Your task to perform on an android device: Go to Reddit.com Image 0: 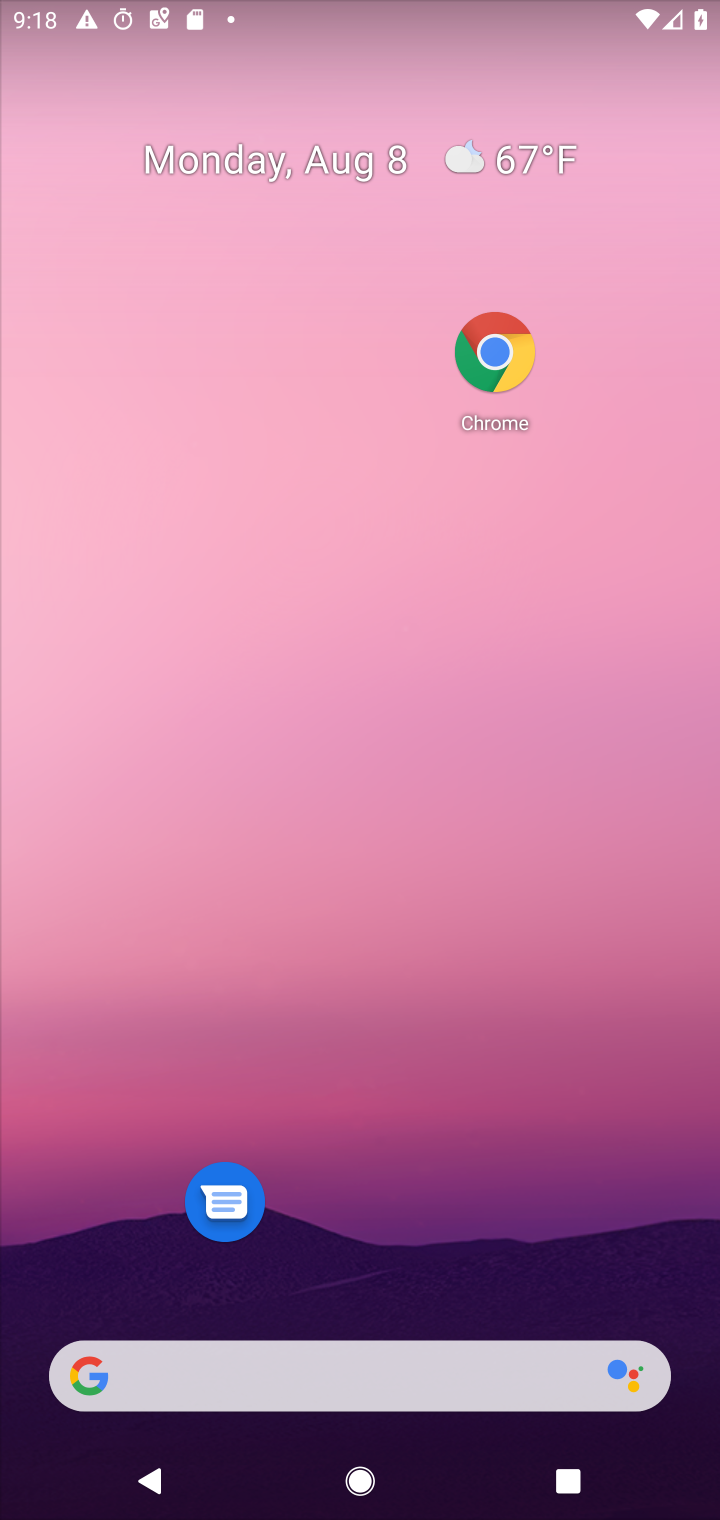
Step 0: drag from (396, 1330) to (463, 48)
Your task to perform on an android device: Go to Reddit.com Image 1: 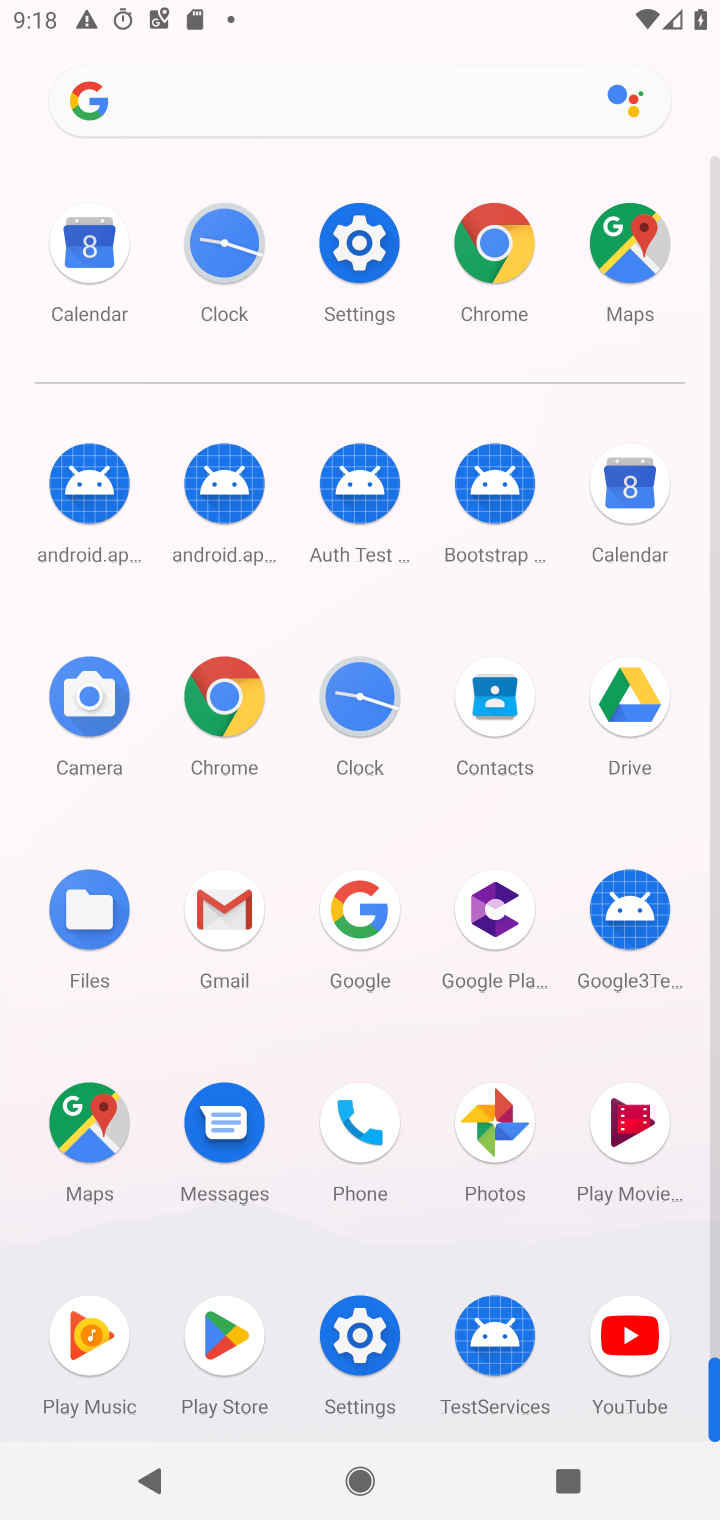
Step 1: click (499, 268)
Your task to perform on an android device: Go to Reddit.com Image 2: 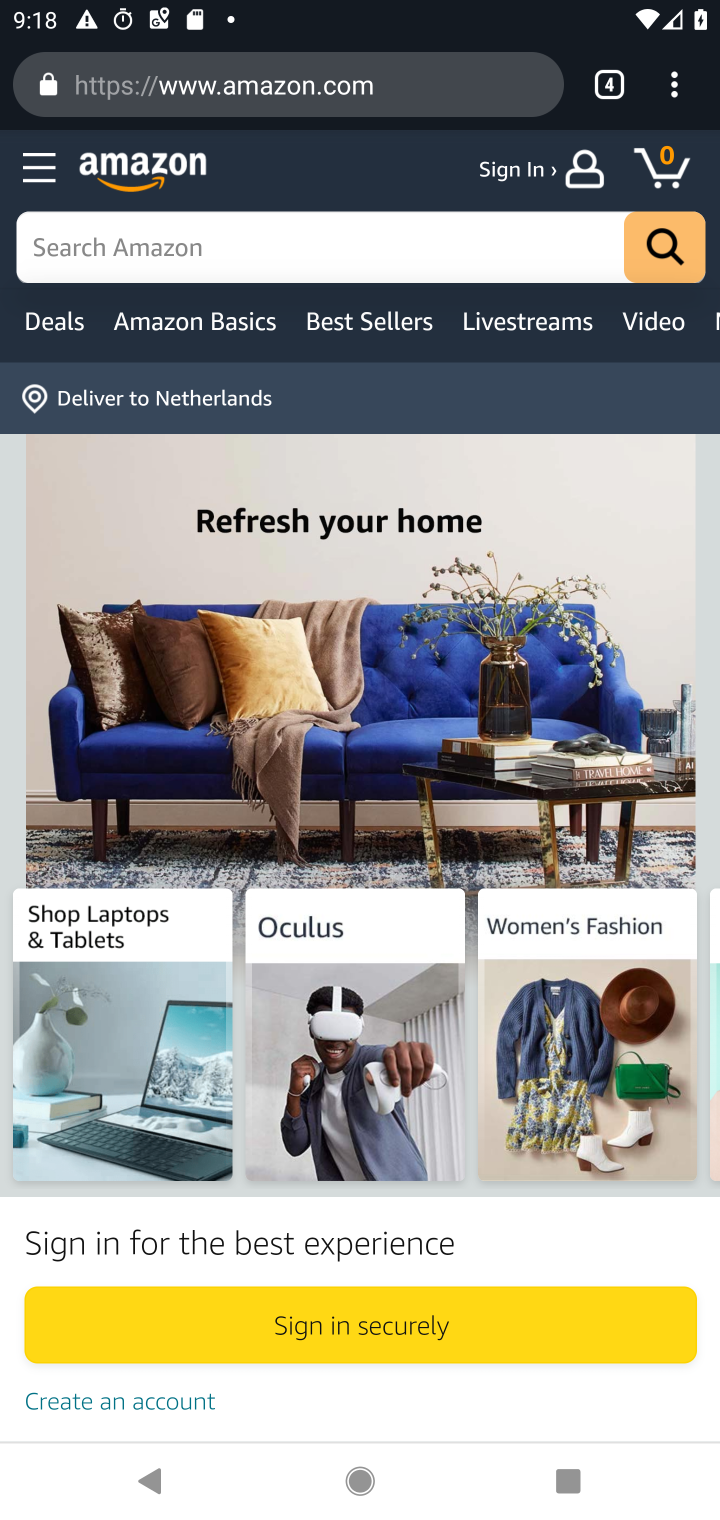
Step 2: click (440, 82)
Your task to perform on an android device: Go to Reddit.com Image 3: 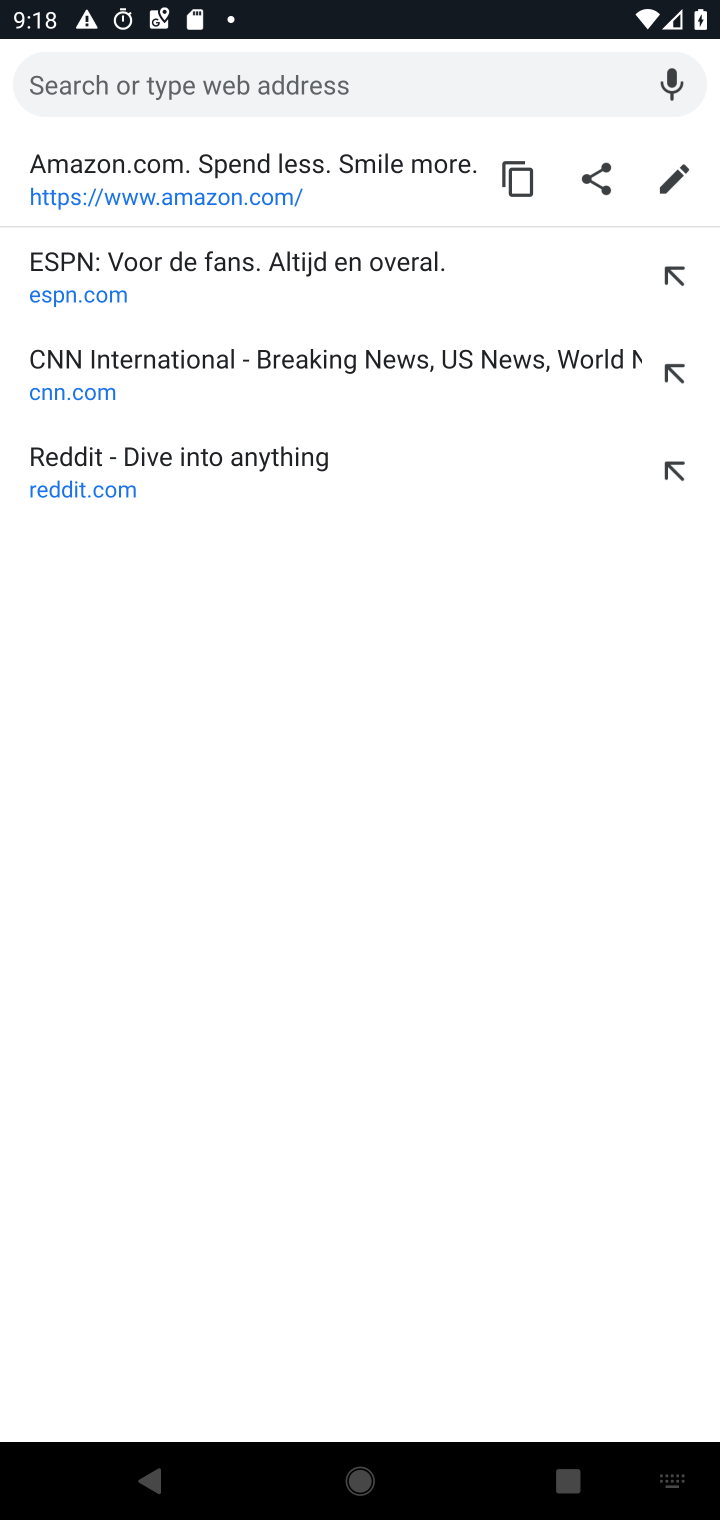
Step 3: click (255, 491)
Your task to perform on an android device: Go to Reddit.com Image 4: 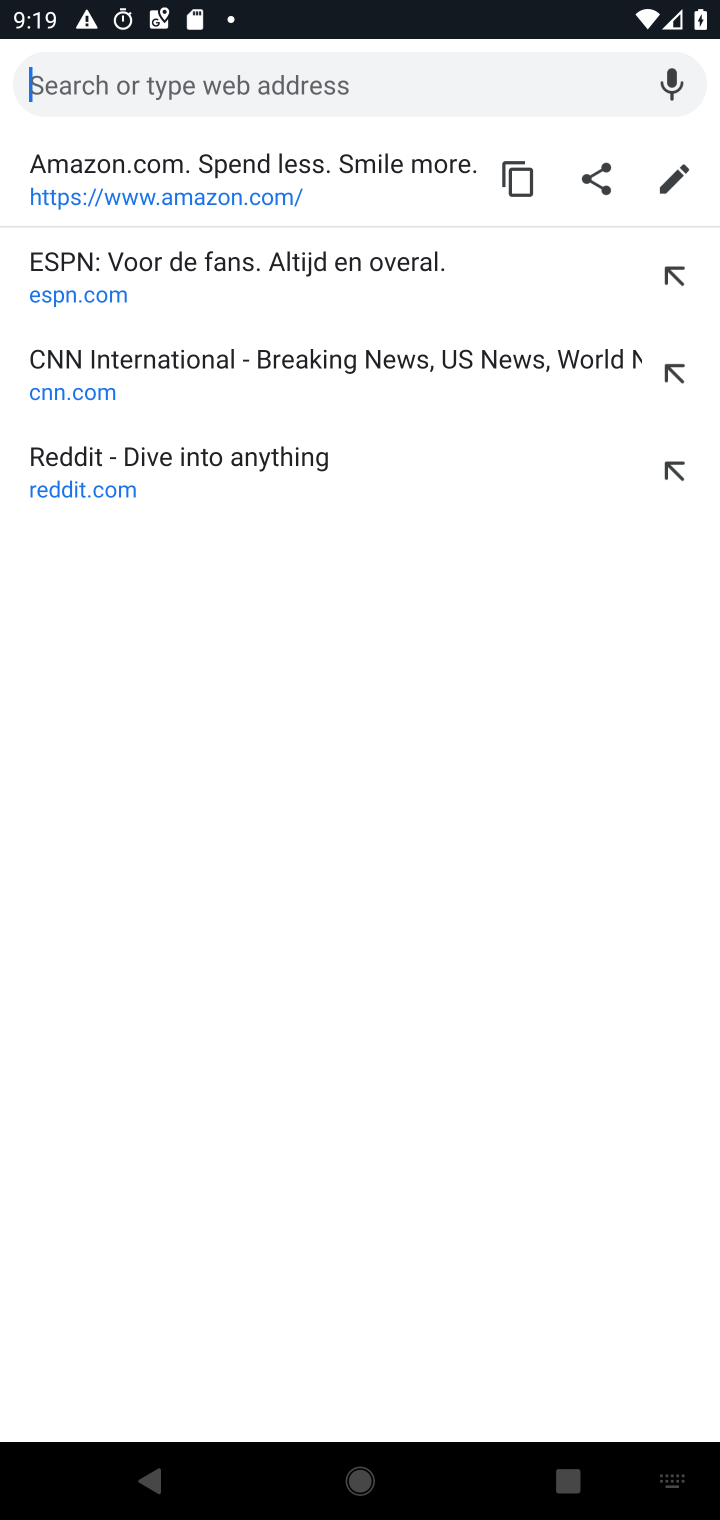
Step 4: click (288, 469)
Your task to perform on an android device: Go to Reddit.com Image 5: 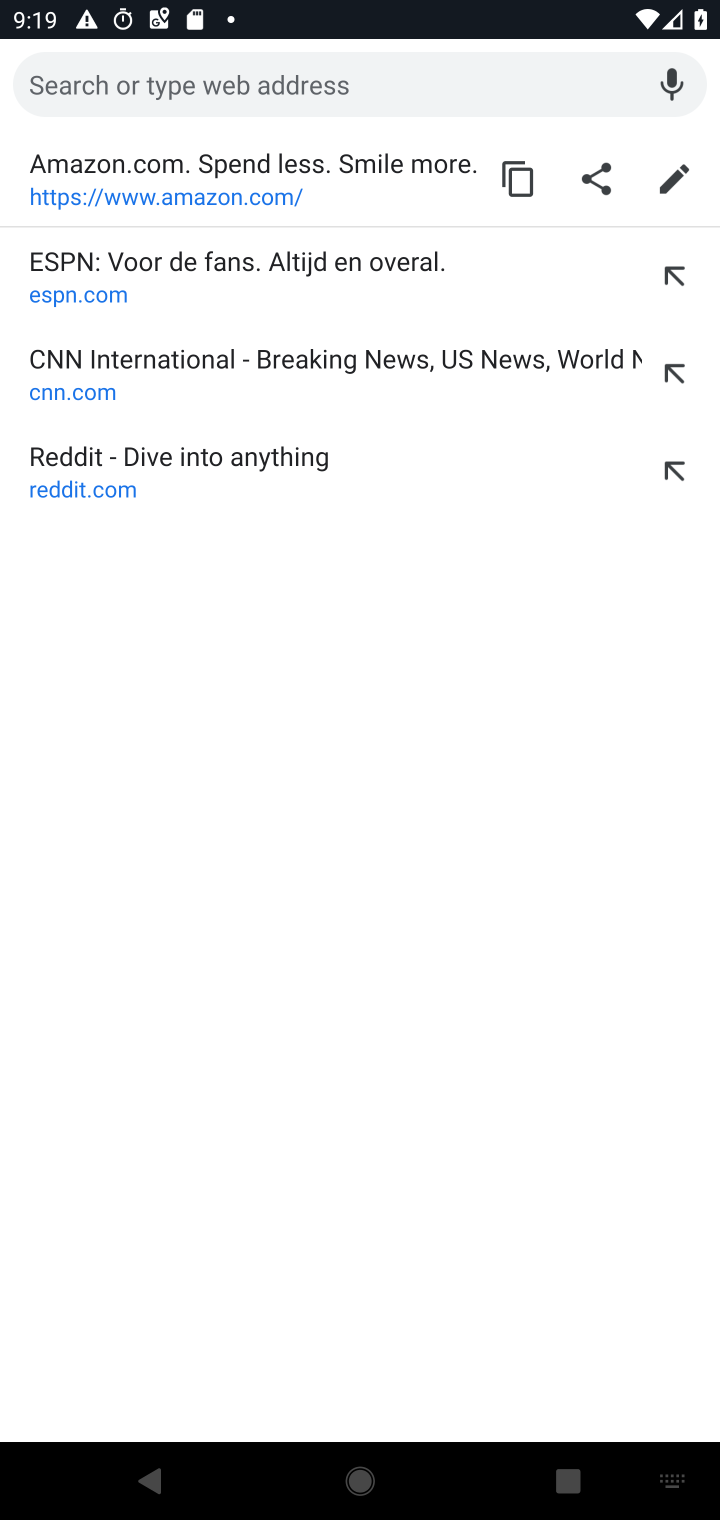
Step 5: click (69, 474)
Your task to perform on an android device: Go to Reddit.com Image 6: 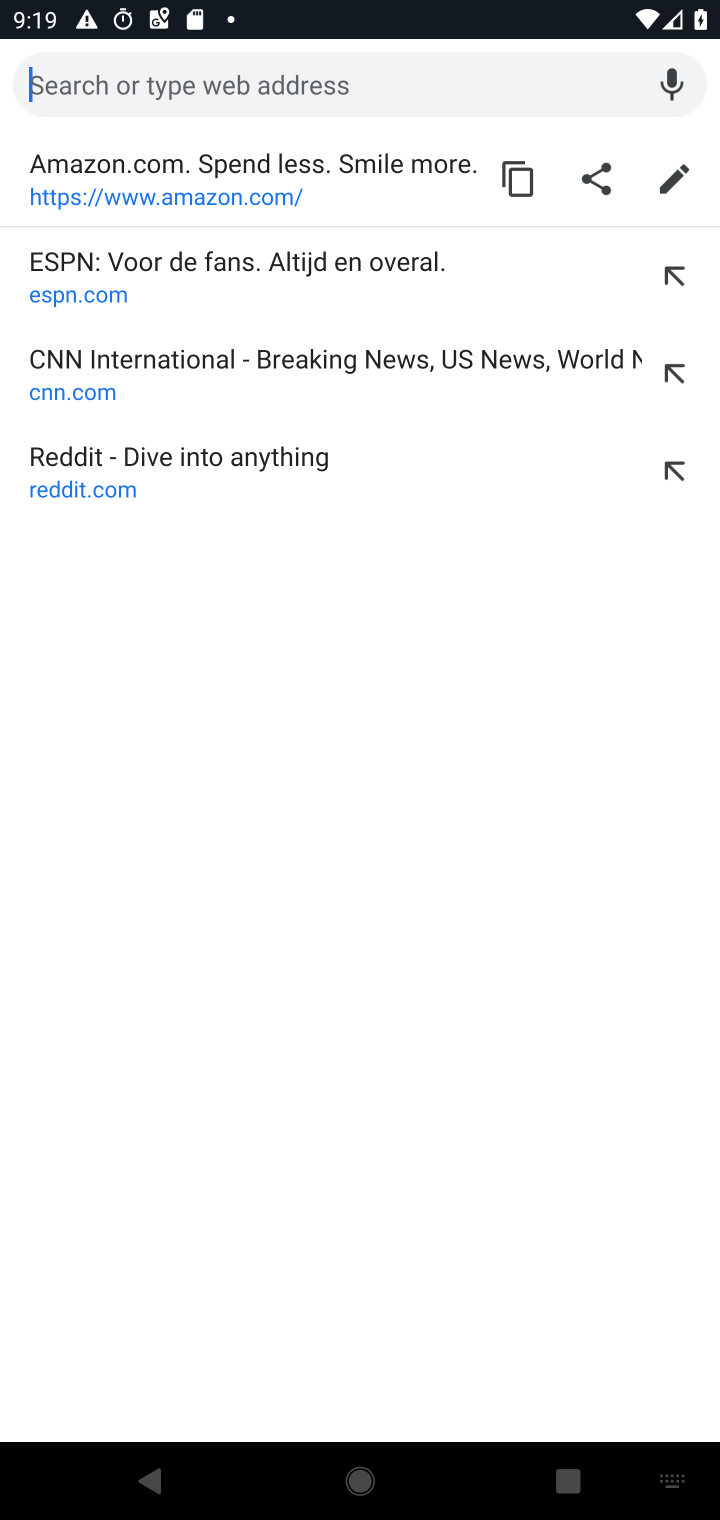
Step 6: click (139, 480)
Your task to perform on an android device: Go to Reddit.com Image 7: 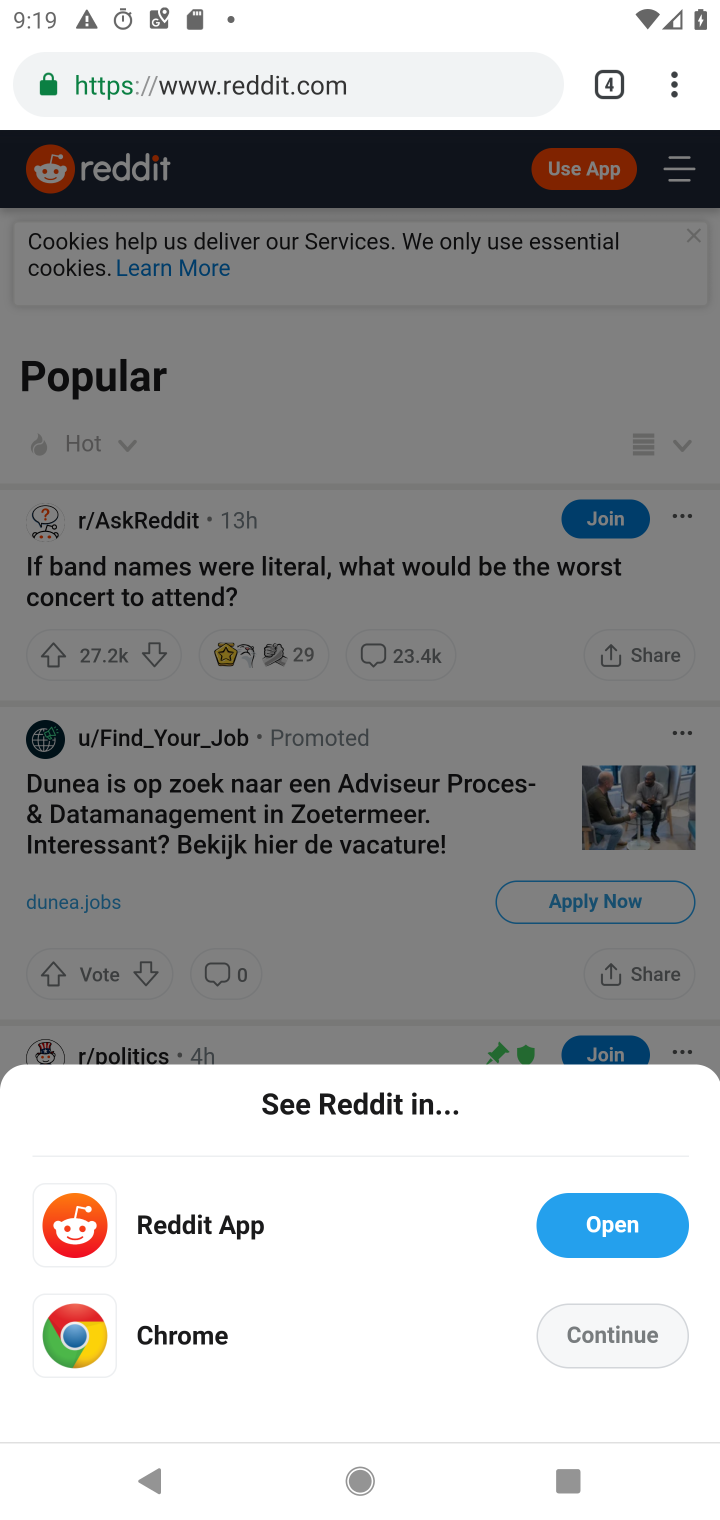
Step 7: task complete